Your task to perform on an android device: Is it going to rain tomorrow? Image 0: 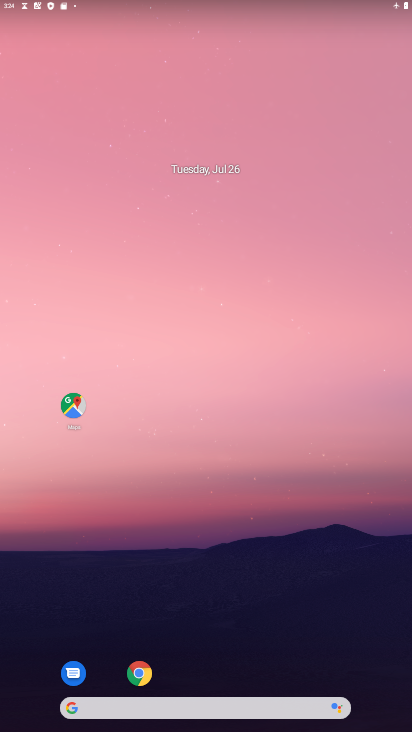
Step 0: click (139, 674)
Your task to perform on an android device: Is it going to rain tomorrow? Image 1: 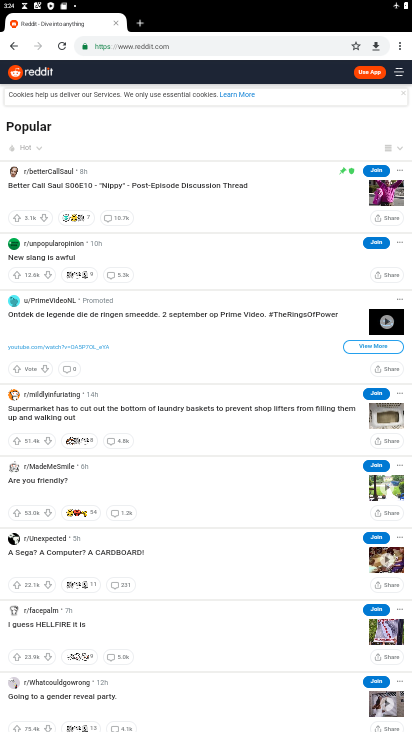
Step 1: click (223, 49)
Your task to perform on an android device: Is it going to rain tomorrow? Image 2: 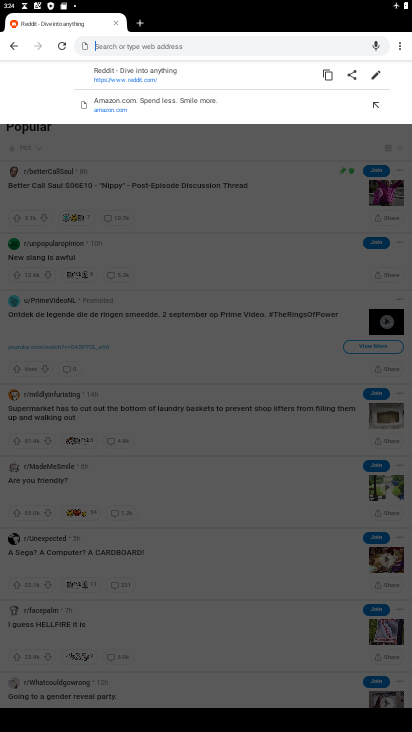
Step 2: type "Is it going to rain tomorrow?"
Your task to perform on an android device: Is it going to rain tomorrow? Image 3: 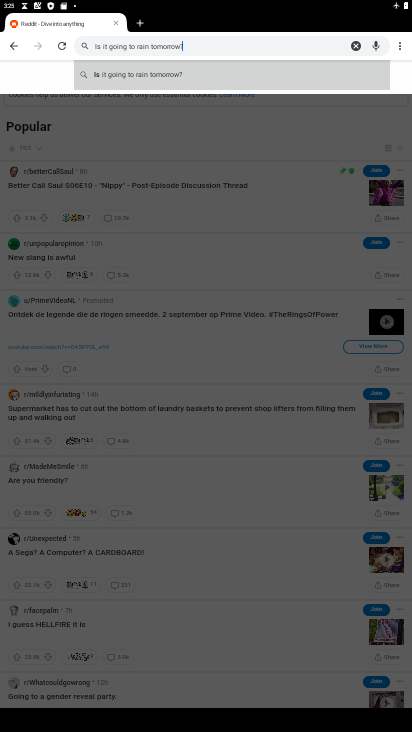
Step 3: click (236, 77)
Your task to perform on an android device: Is it going to rain tomorrow? Image 4: 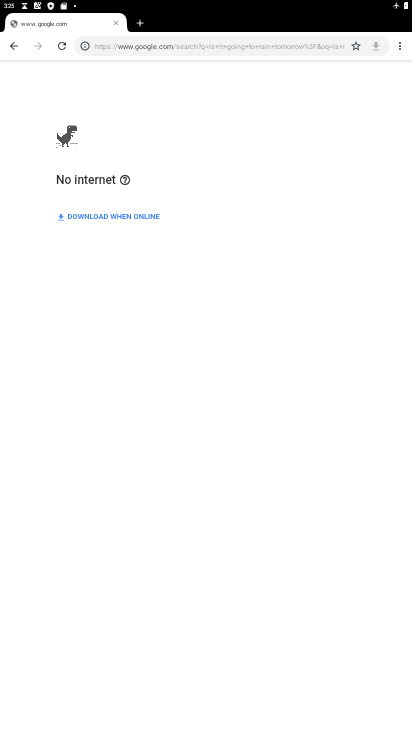
Step 4: task complete